Your task to perform on an android device: turn off smart reply in the gmail app Image 0: 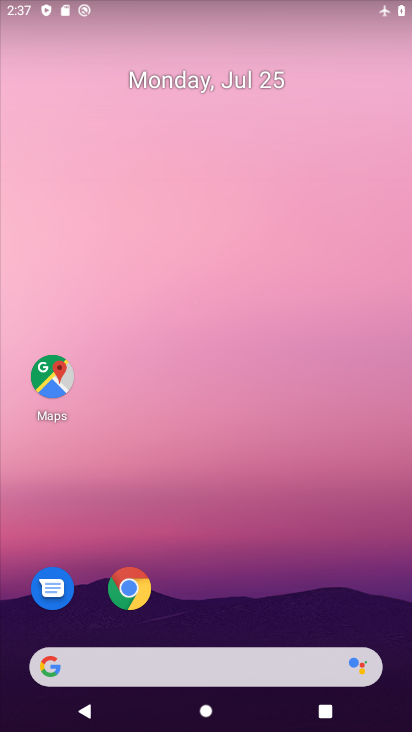
Step 0: drag from (228, 725) to (225, 247)
Your task to perform on an android device: turn off smart reply in the gmail app Image 1: 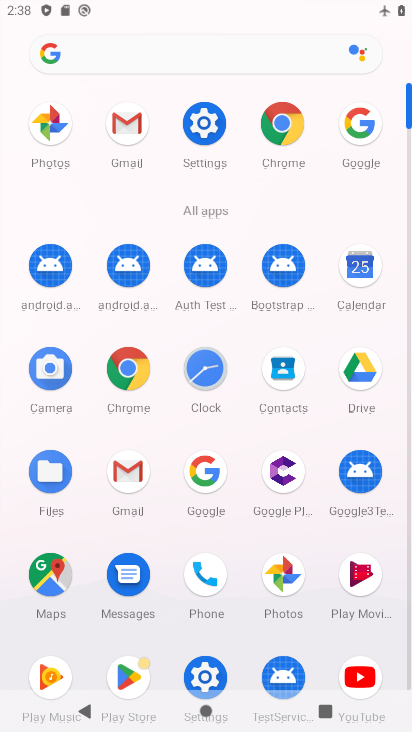
Step 1: click (132, 467)
Your task to perform on an android device: turn off smart reply in the gmail app Image 2: 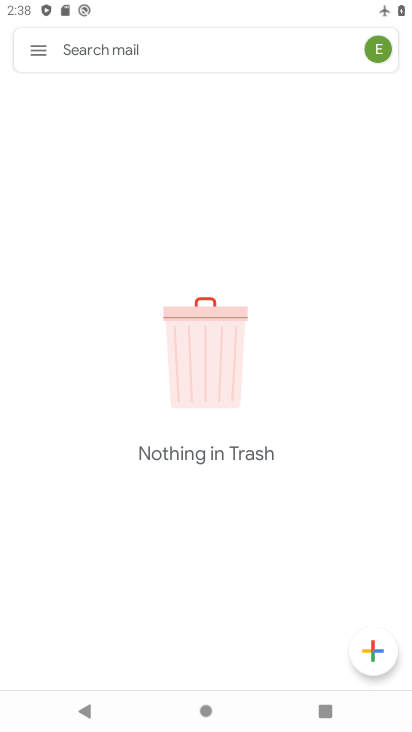
Step 2: click (34, 51)
Your task to perform on an android device: turn off smart reply in the gmail app Image 3: 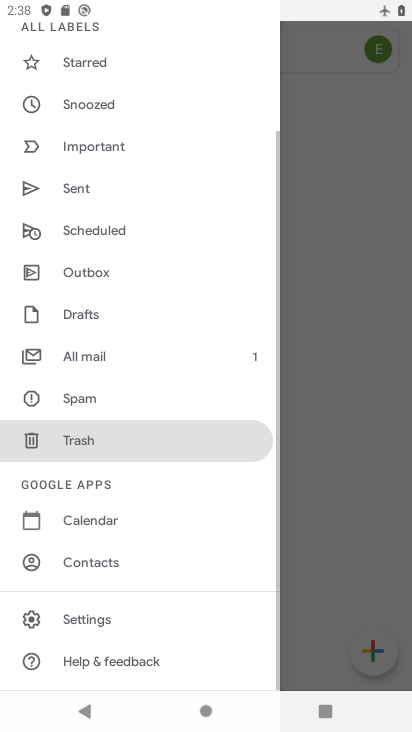
Step 3: drag from (139, 645) to (138, 322)
Your task to perform on an android device: turn off smart reply in the gmail app Image 4: 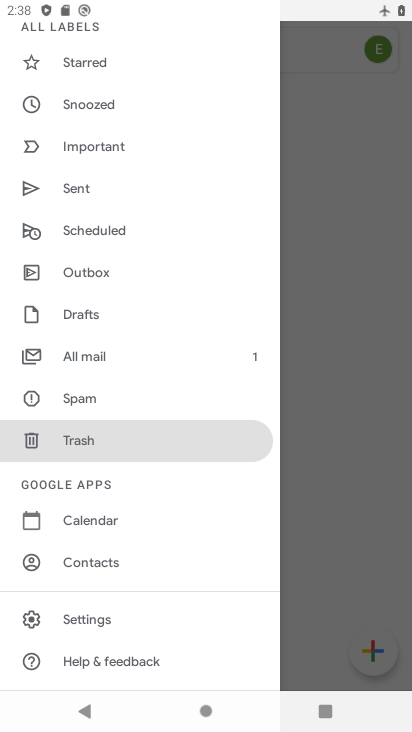
Step 4: click (92, 621)
Your task to perform on an android device: turn off smart reply in the gmail app Image 5: 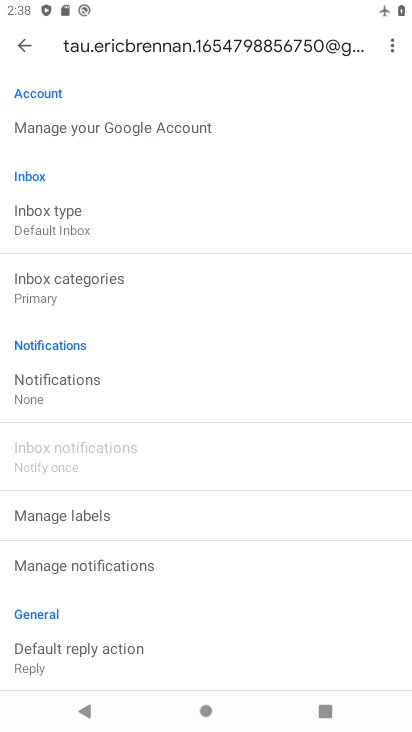
Step 5: drag from (109, 637) to (118, 382)
Your task to perform on an android device: turn off smart reply in the gmail app Image 6: 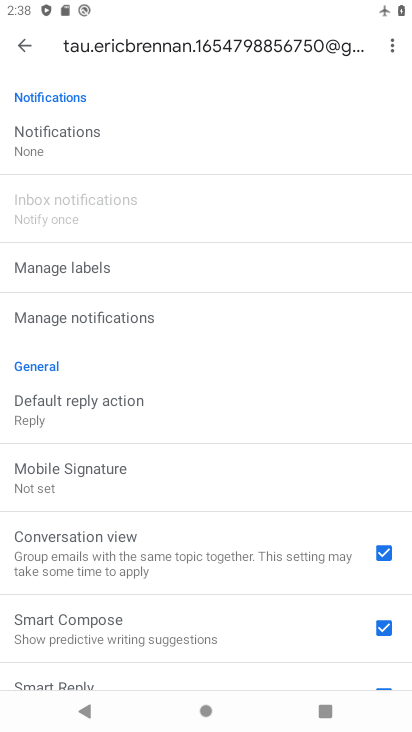
Step 6: drag from (163, 649) to (154, 271)
Your task to perform on an android device: turn off smart reply in the gmail app Image 7: 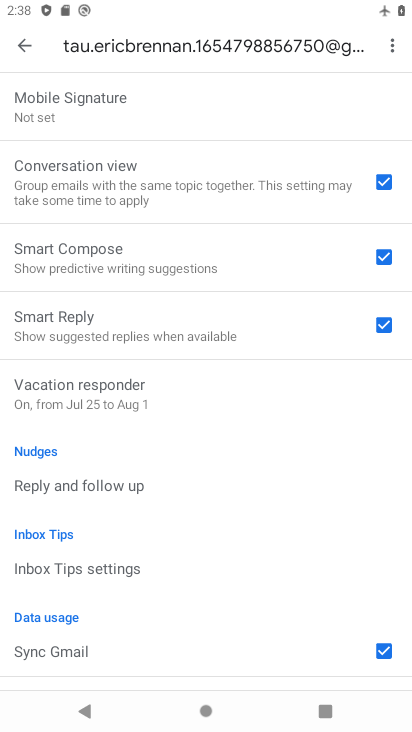
Step 7: click (386, 321)
Your task to perform on an android device: turn off smart reply in the gmail app Image 8: 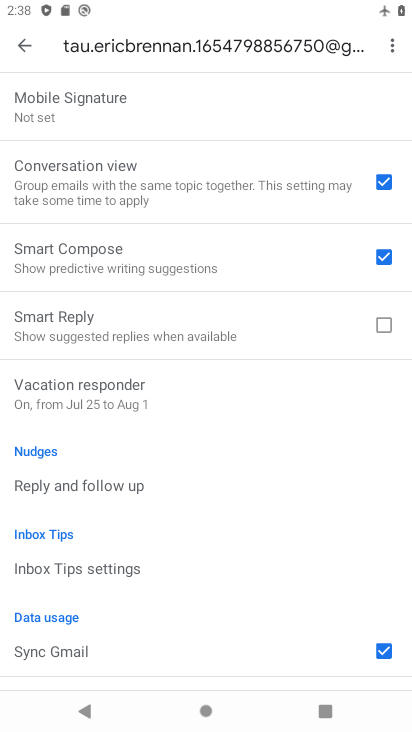
Step 8: task complete